Your task to perform on an android device: move an email to a new category in the gmail app Image 0: 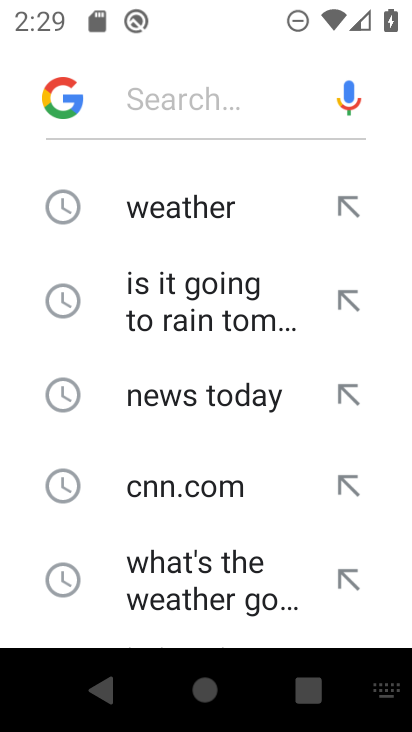
Step 0: press home button
Your task to perform on an android device: move an email to a new category in the gmail app Image 1: 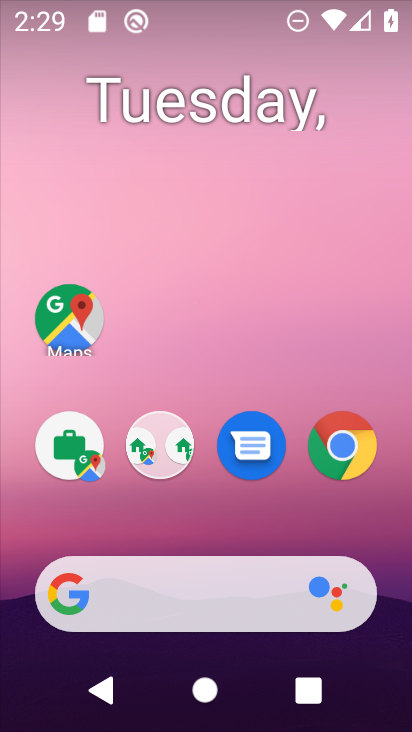
Step 1: drag from (286, 523) to (309, 248)
Your task to perform on an android device: move an email to a new category in the gmail app Image 2: 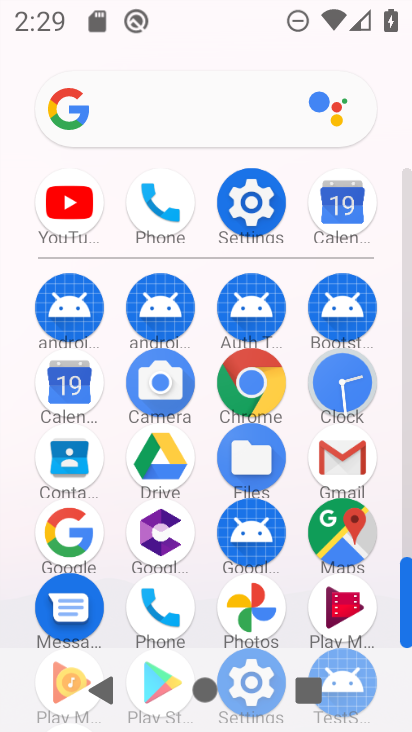
Step 2: click (345, 460)
Your task to perform on an android device: move an email to a new category in the gmail app Image 3: 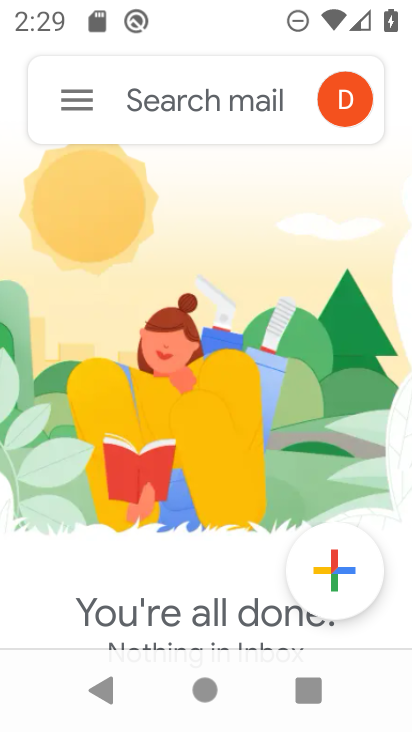
Step 3: click (98, 108)
Your task to perform on an android device: move an email to a new category in the gmail app Image 4: 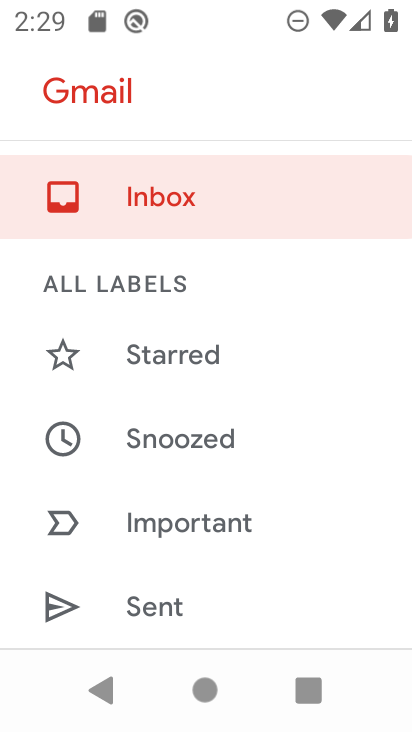
Step 4: drag from (203, 503) to (224, 233)
Your task to perform on an android device: move an email to a new category in the gmail app Image 5: 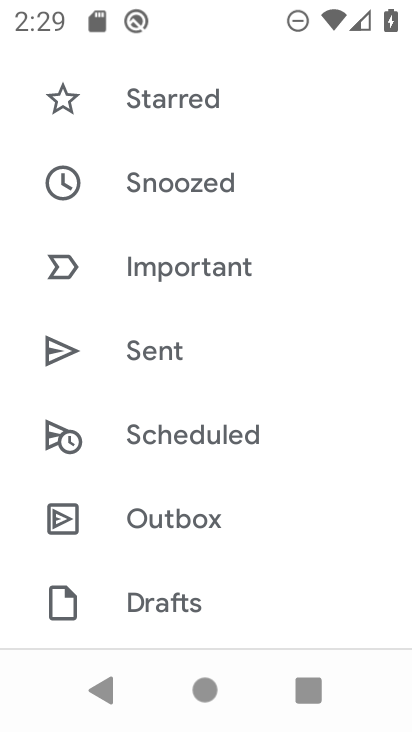
Step 5: drag from (192, 478) to (227, 193)
Your task to perform on an android device: move an email to a new category in the gmail app Image 6: 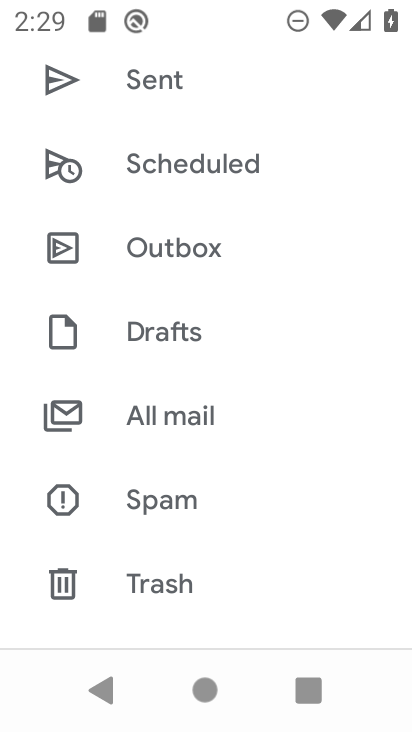
Step 6: click (189, 423)
Your task to perform on an android device: move an email to a new category in the gmail app Image 7: 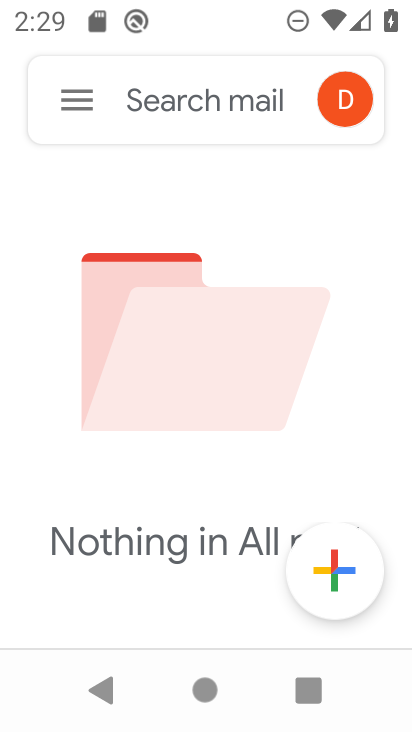
Step 7: task complete